Your task to perform on an android device: turn on the 12-hour format for clock Image 0: 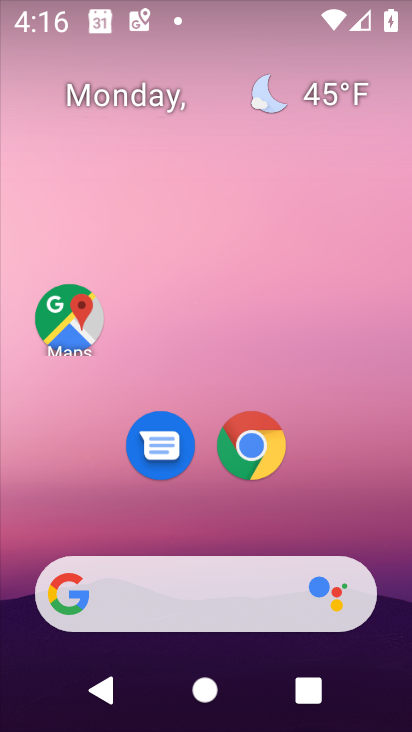
Step 0: drag from (318, 505) to (316, 26)
Your task to perform on an android device: turn on the 12-hour format for clock Image 1: 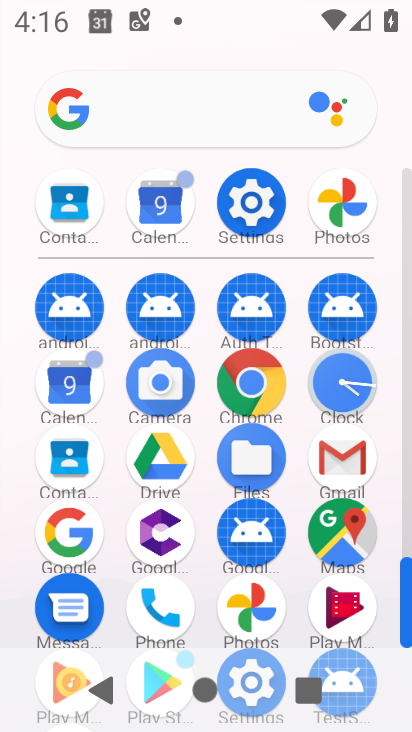
Step 1: click (352, 385)
Your task to perform on an android device: turn on the 12-hour format for clock Image 2: 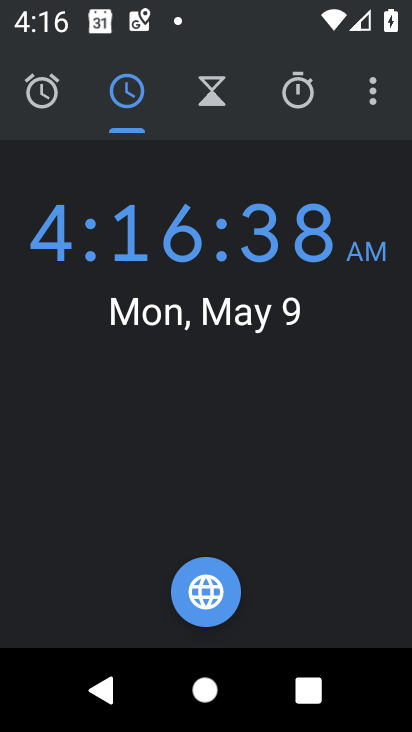
Step 2: click (353, 105)
Your task to perform on an android device: turn on the 12-hour format for clock Image 3: 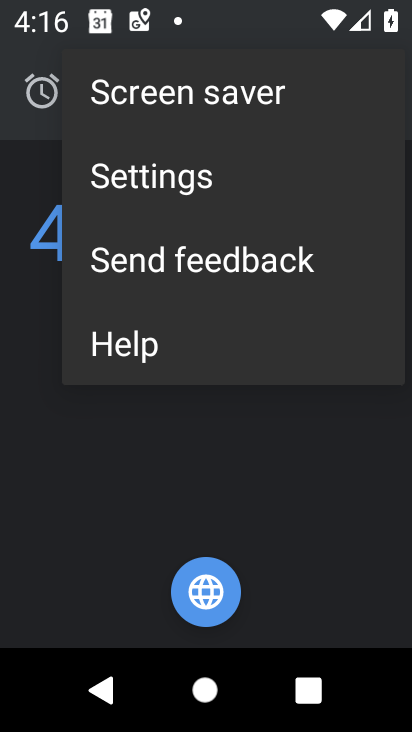
Step 3: click (326, 153)
Your task to perform on an android device: turn on the 12-hour format for clock Image 4: 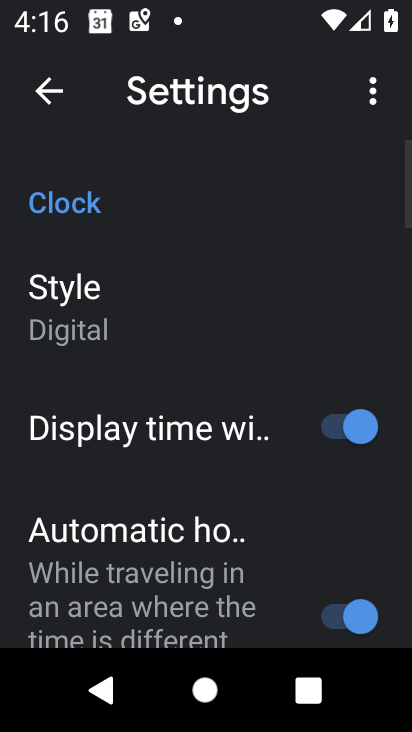
Step 4: drag from (210, 554) to (223, 77)
Your task to perform on an android device: turn on the 12-hour format for clock Image 5: 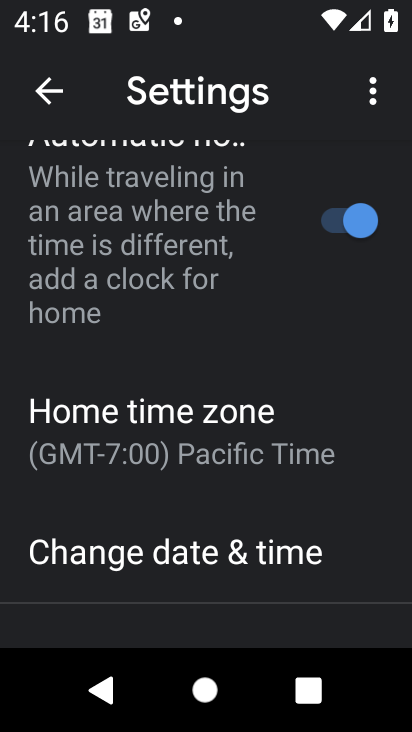
Step 5: click (197, 552)
Your task to perform on an android device: turn on the 12-hour format for clock Image 6: 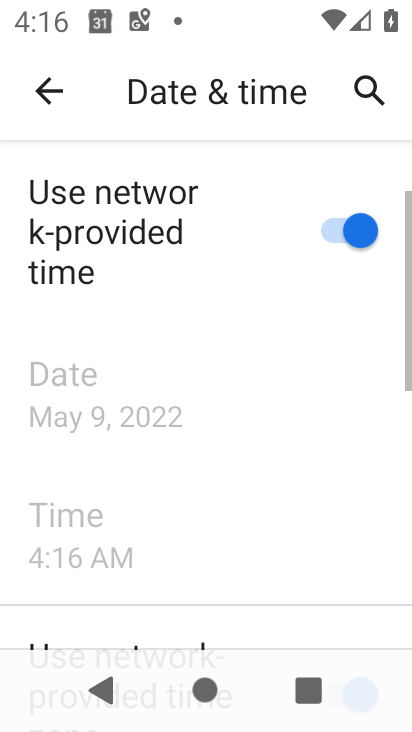
Step 6: task complete